Your task to perform on an android device: install app "TextNow: Call + Text Unlimited" Image 0: 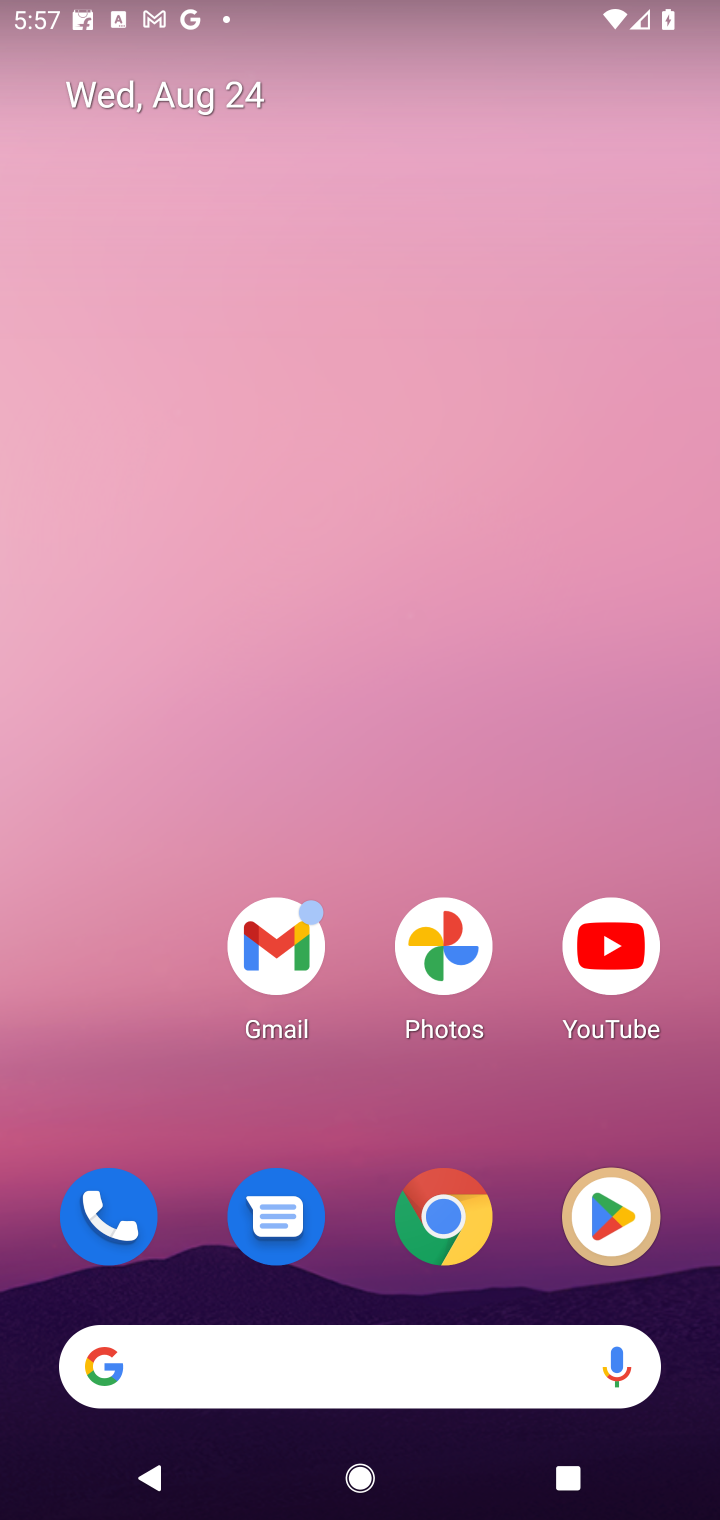
Step 0: click (604, 1246)
Your task to perform on an android device: install app "TextNow: Call + Text Unlimited" Image 1: 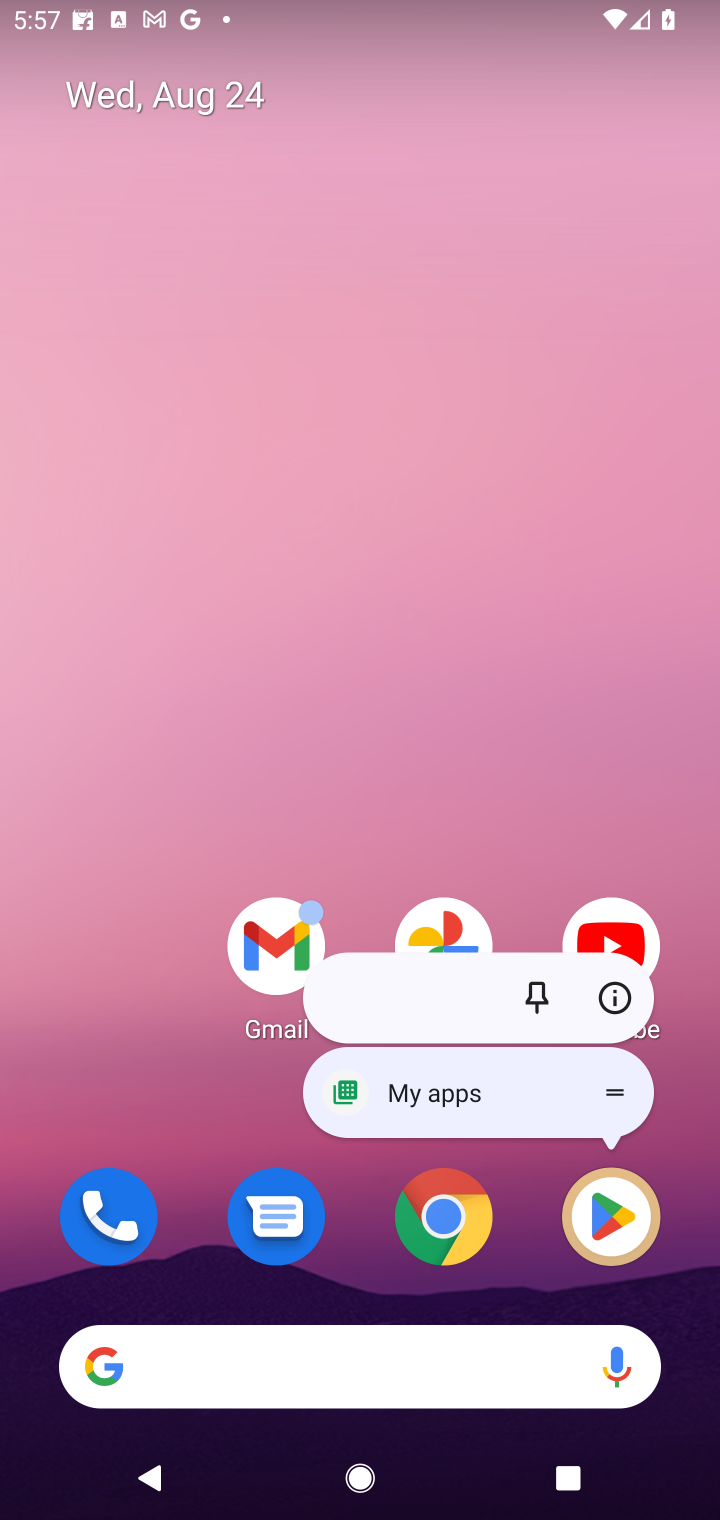
Step 1: click (609, 1196)
Your task to perform on an android device: install app "TextNow: Call + Text Unlimited" Image 2: 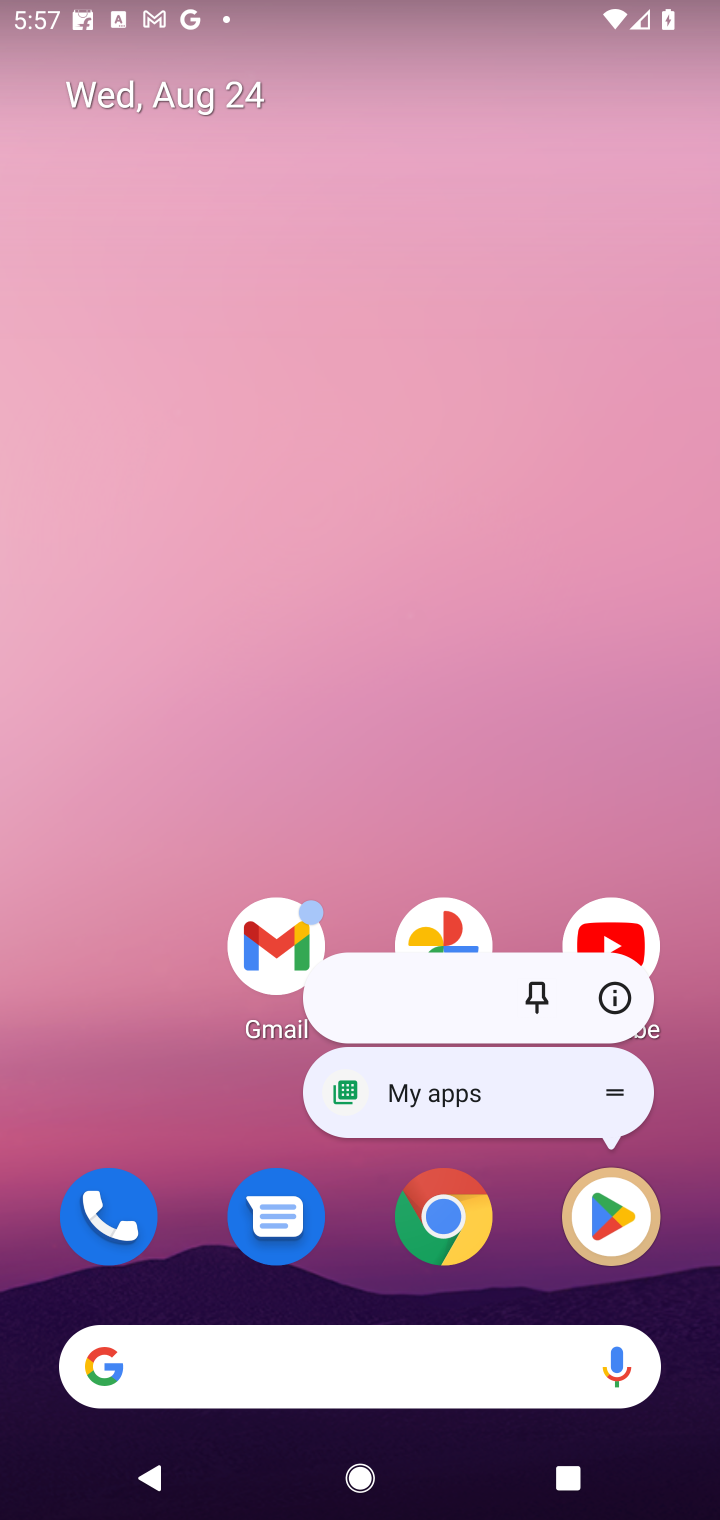
Step 2: click (609, 1211)
Your task to perform on an android device: install app "TextNow: Call + Text Unlimited" Image 3: 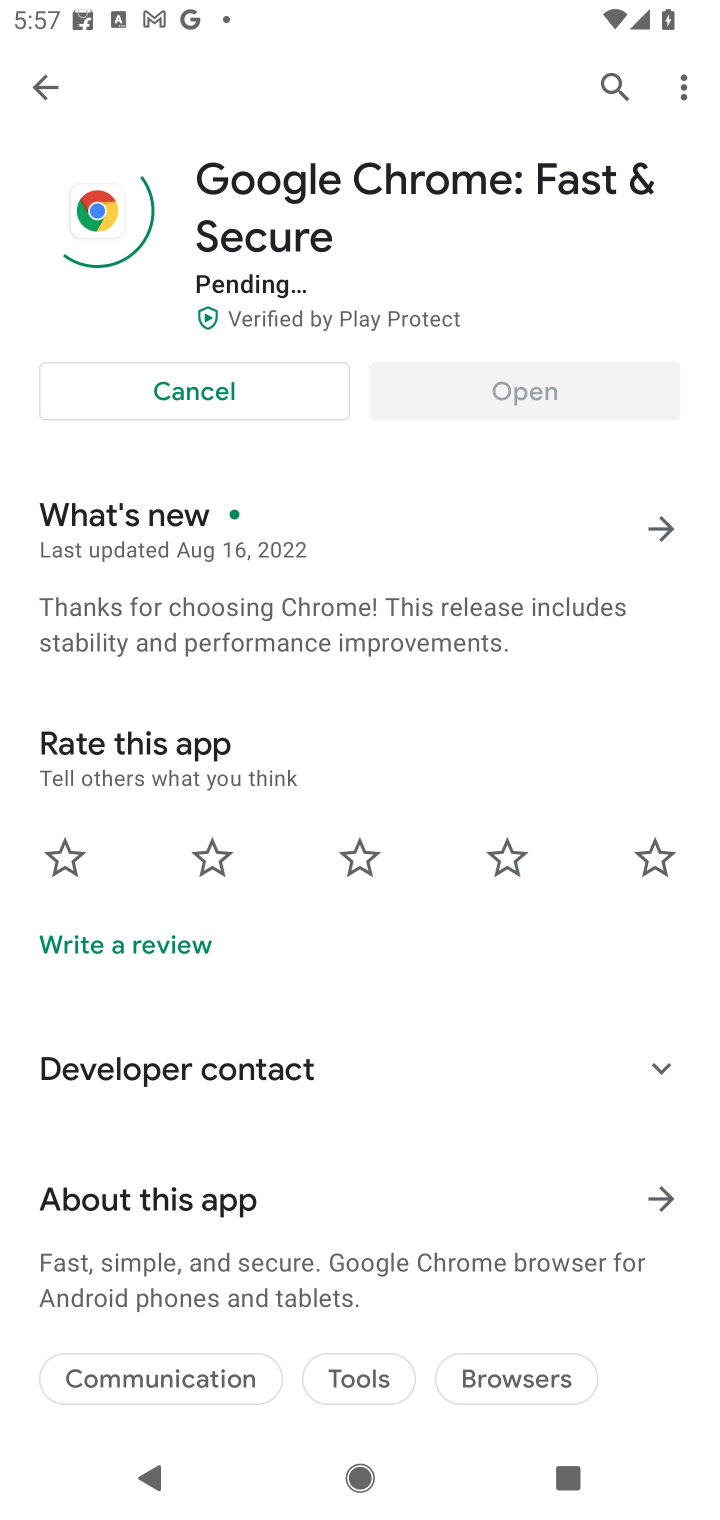
Step 3: click (599, 88)
Your task to perform on an android device: install app "TextNow: Call + Text Unlimited" Image 4: 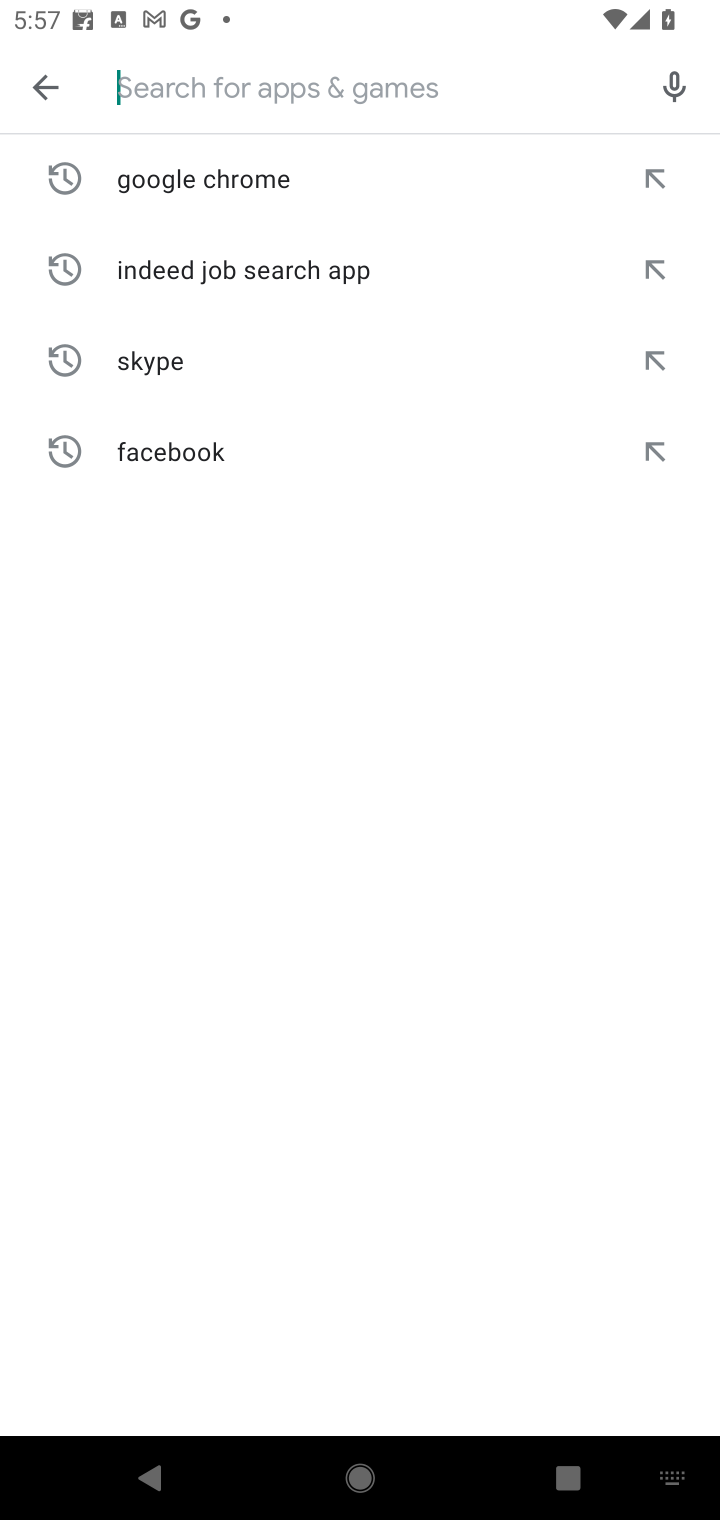
Step 4: type "TextNow: Call + Text Unlimited"
Your task to perform on an android device: install app "TextNow: Call + Text Unlimited" Image 5: 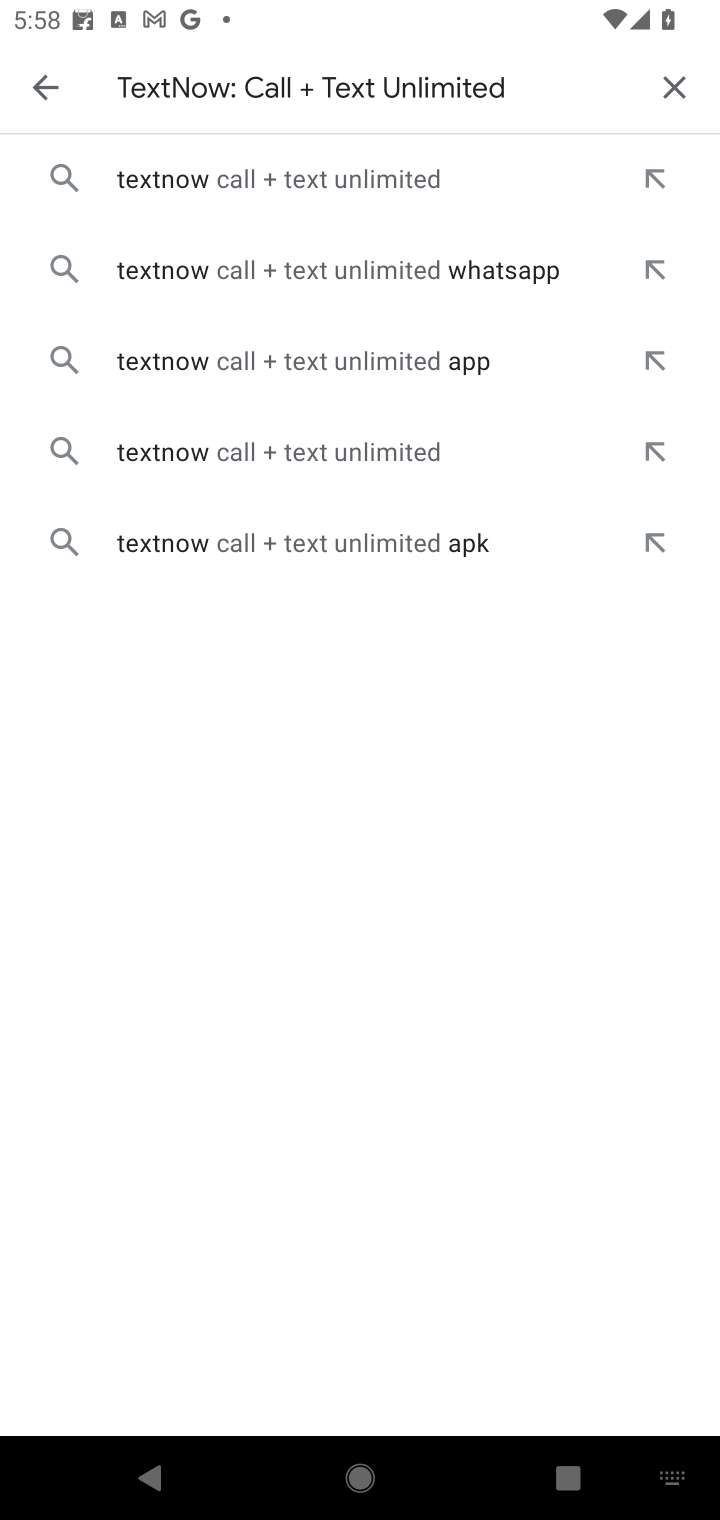
Step 5: click (461, 173)
Your task to perform on an android device: install app "TextNow: Call + Text Unlimited" Image 6: 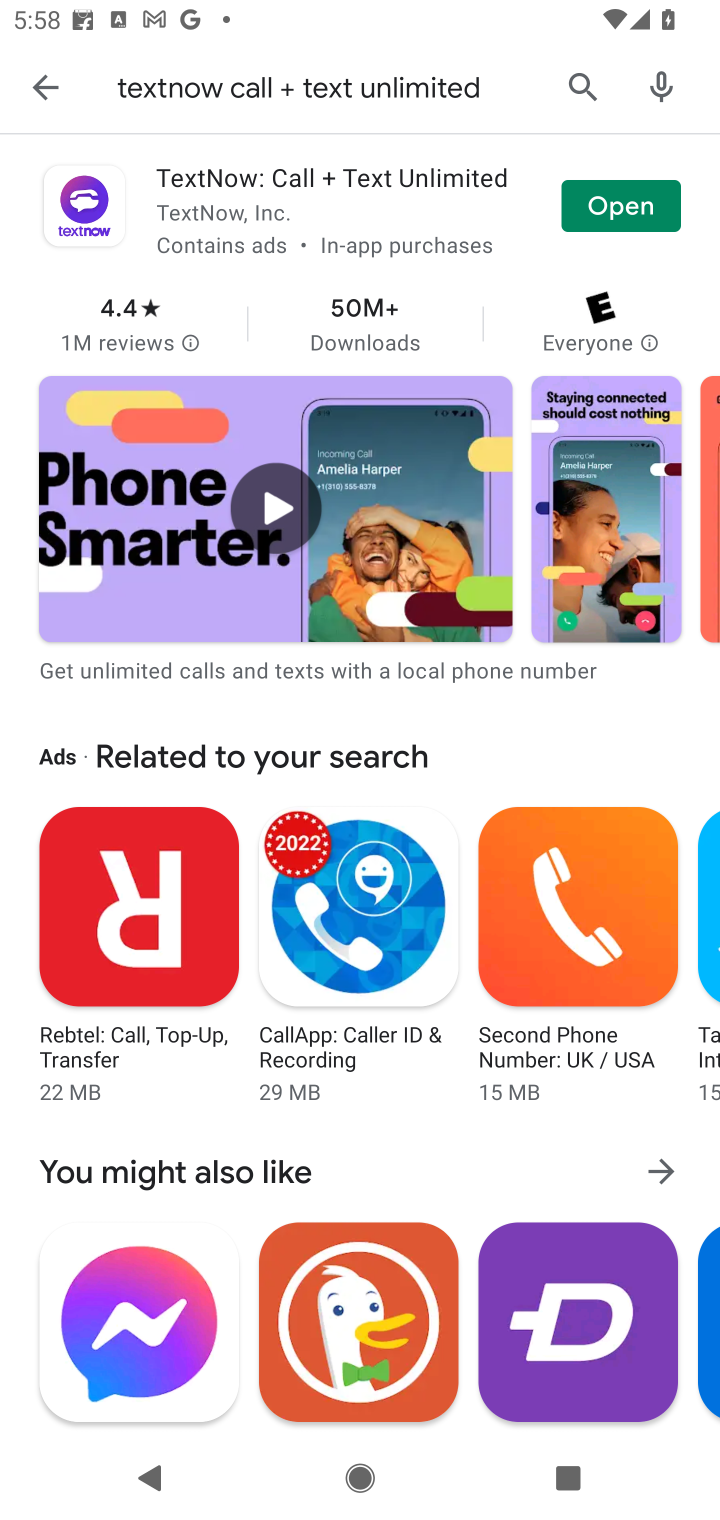
Step 6: task complete